Your task to perform on an android device: turn on the 24-hour format for clock Image 0: 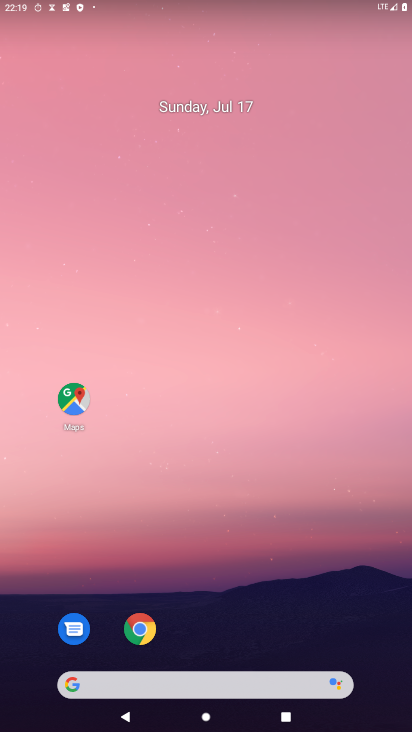
Step 0: drag from (221, 730) to (218, 39)
Your task to perform on an android device: turn on the 24-hour format for clock Image 1: 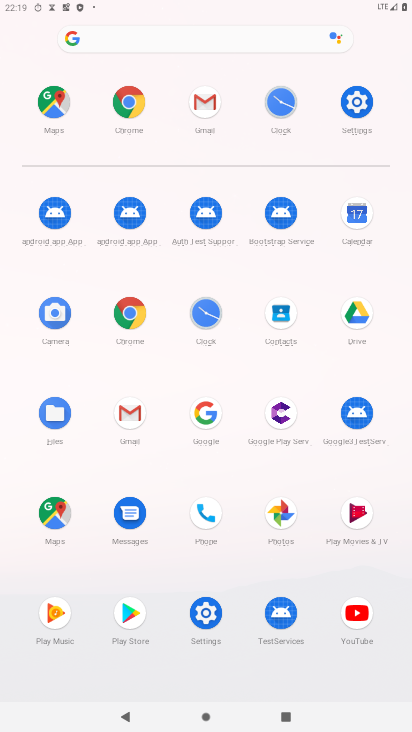
Step 1: click (210, 314)
Your task to perform on an android device: turn on the 24-hour format for clock Image 2: 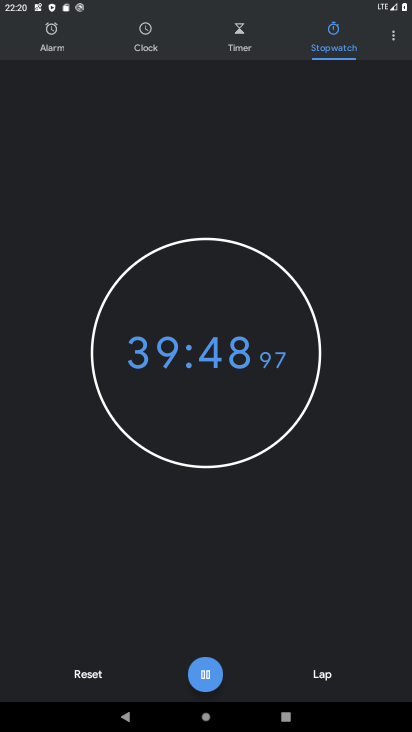
Step 2: click (395, 38)
Your task to perform on an android device: turn on the 24-hour format for clock Image 3: 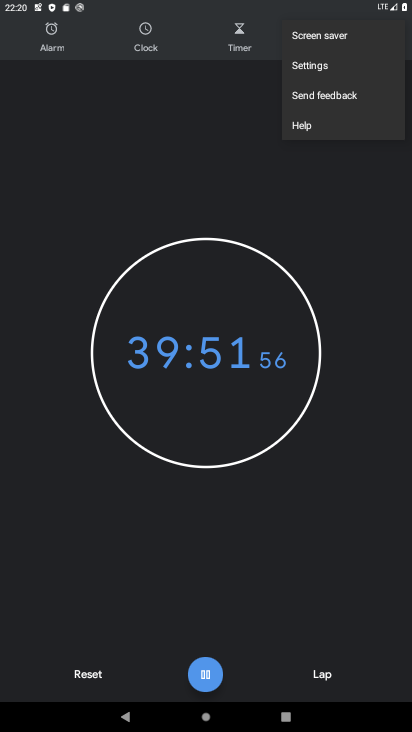
Step 3: click (320, 61)
Your task to perform on an android device: turn on the 24-hour format for clock Image 4: 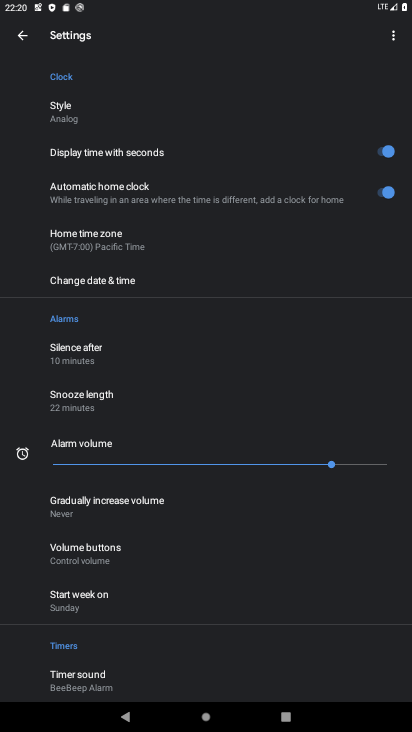
Step 4: click (102, 283)
Your task to perform on an android device: turn on the 24-hour format for clock Image 5: 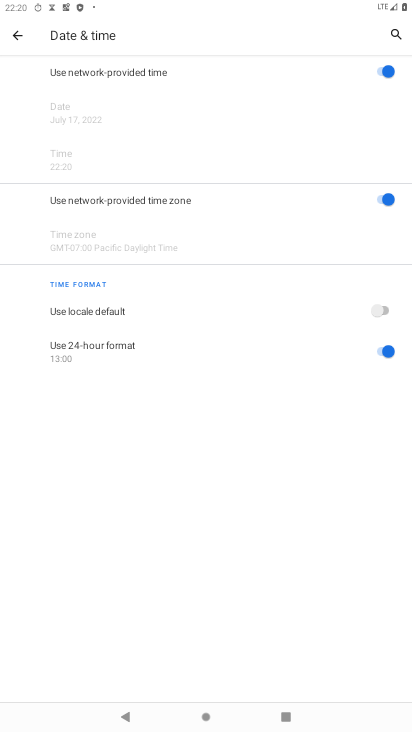
Step 5: task complete